Your task to perform on an android device: Open Maps and search for coffee Image 0: 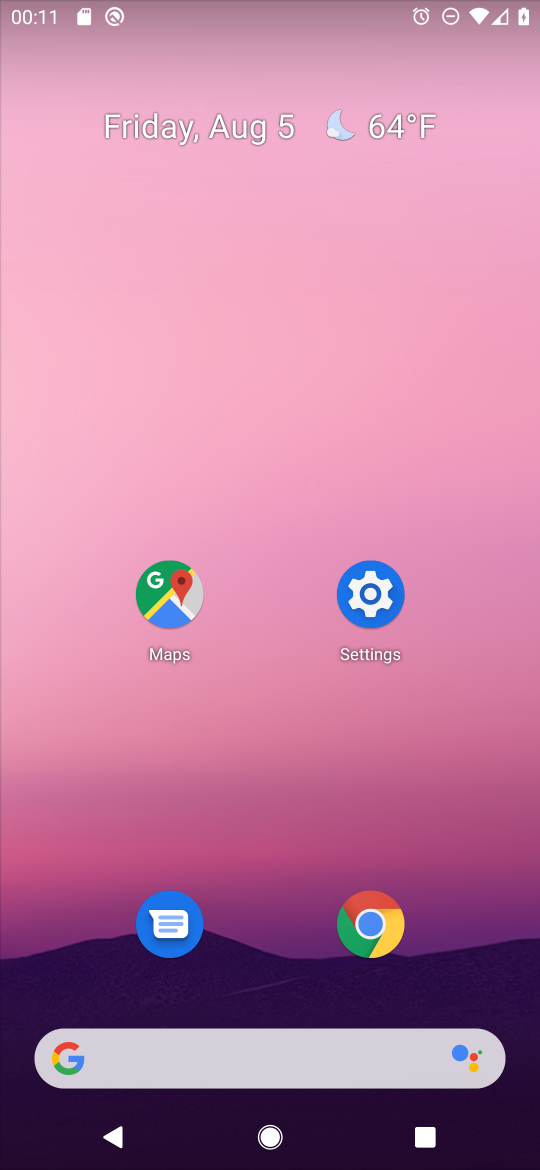
Step 0: click (168, 590)
Your task to perform on an android device: Open Maps and search for coffee Image 1: 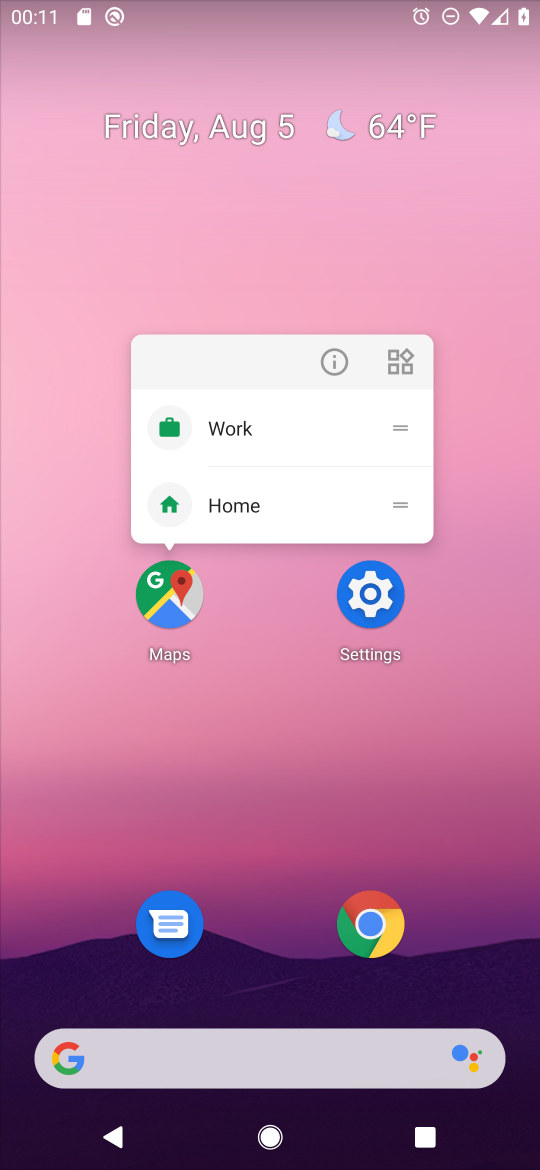
Step 1: click (168, 588)
Your task to perform on an android device: Open Maps and search for coffee Image 2: 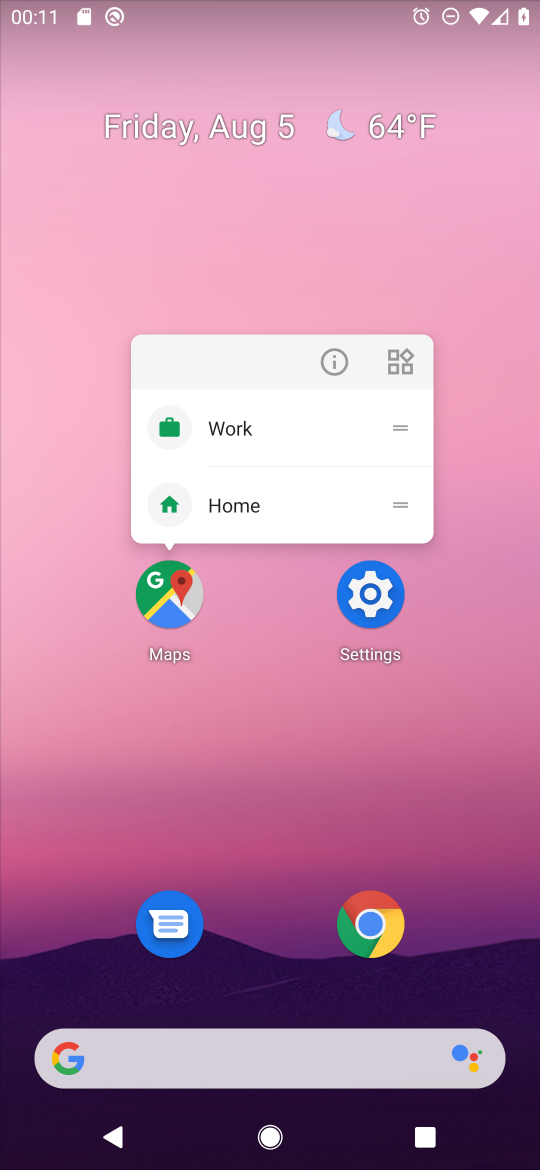
Step 2: click (171, 610)
Your task to perform on an android device: Open Maps and search for coffee Image 3: 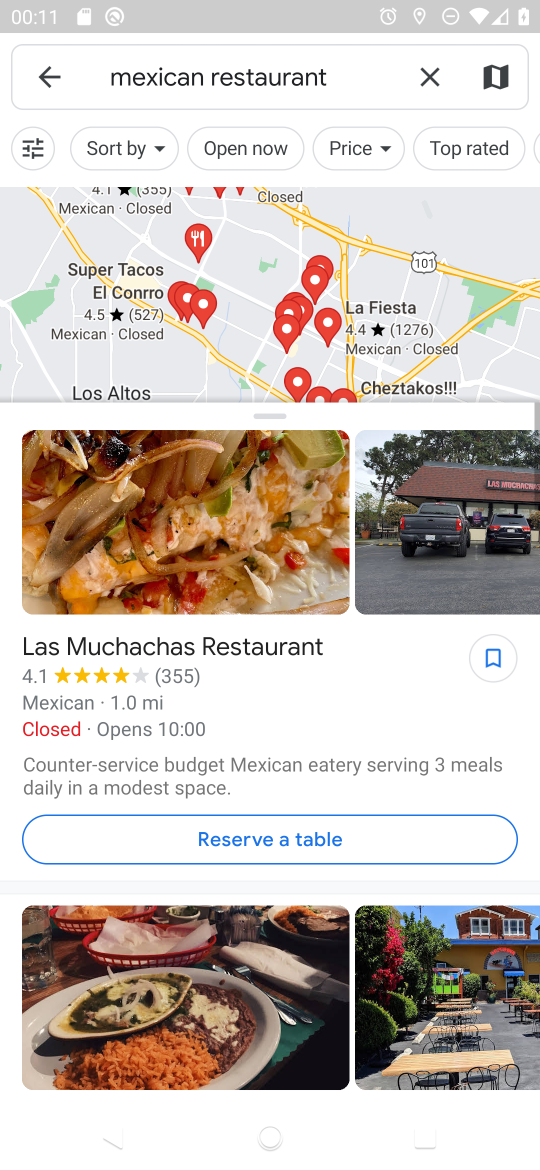
Step 3: click (428, 72)
Your task to perform on an android device: Open Maps and search for coffee Image 4: 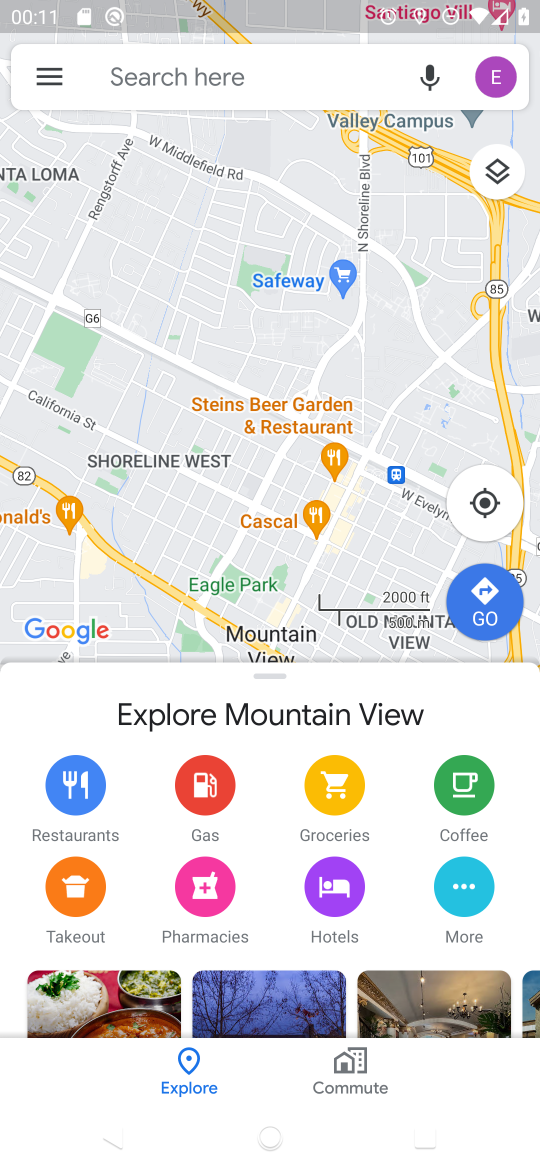
Step 4: click (198, 82)
Your task to perform on an android device: Open Maps and search for coffee Image 5: 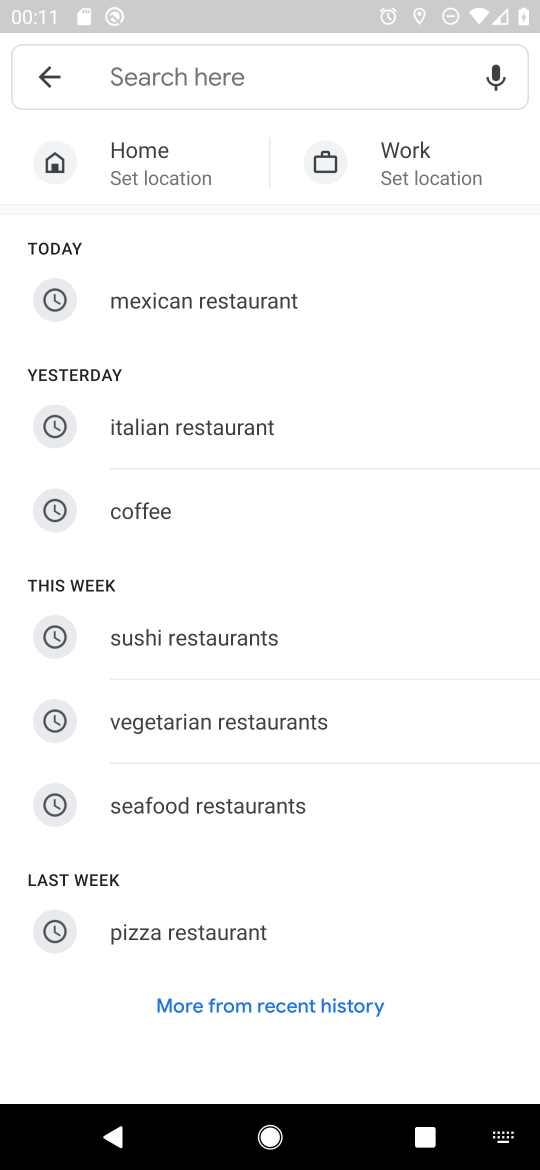
Step 5: click (152, 507)
Your task to perform on an android device: Open Maps and search for coffee Image 6: 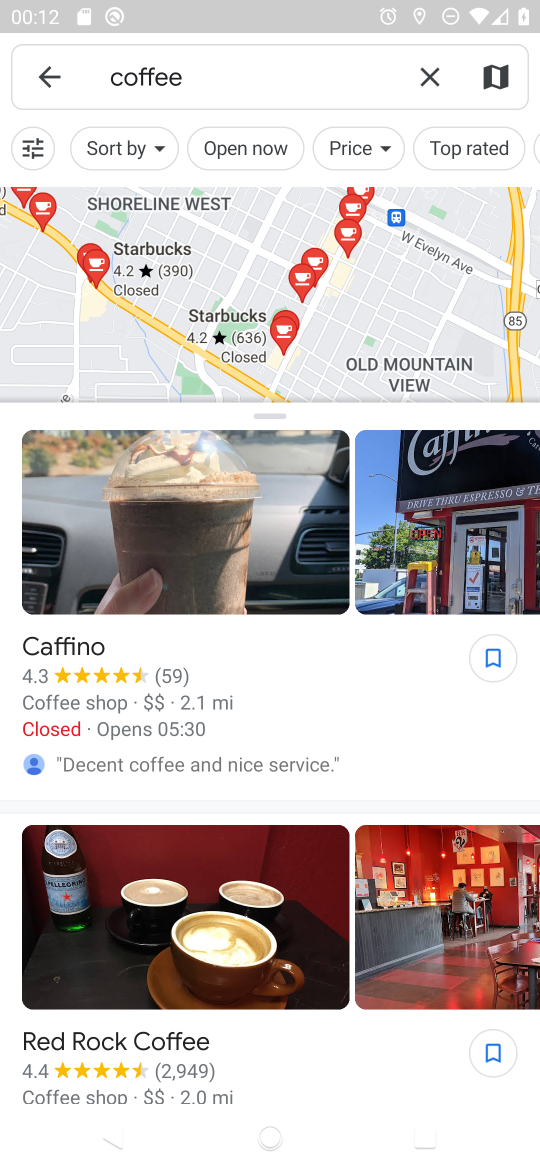
Step 6: task complete